Your task to perform on an android device: add a label to a message in the gmail app Image 0: 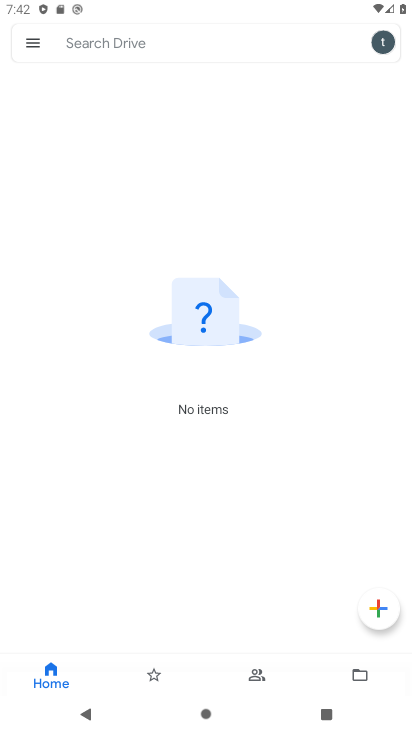
Step 0: press home button
Your task to perform on an android device: add a label to a message in the gmail app Image 1: 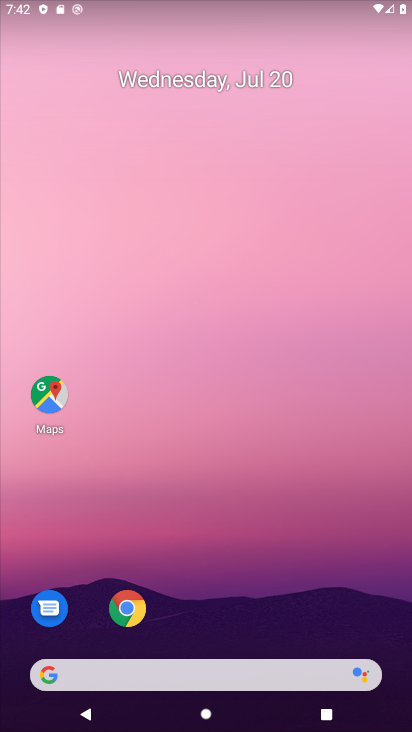
Step 1: drag from (199, 505) to (225, 16)
Your task to perform on an android device: add a label to a message in the gmail app Image 2: 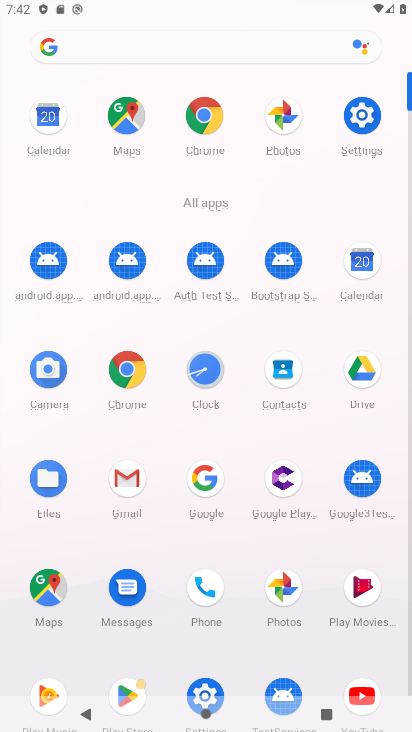
Step 2: click (126, 487)
Your task to perform on an android device: add a label to a message in the gmail app Image 3: 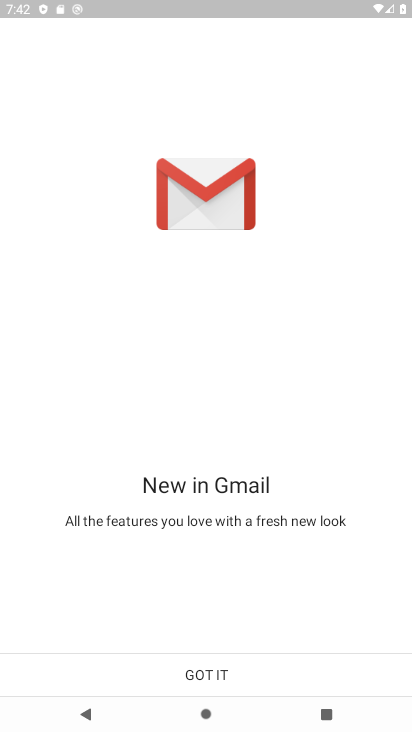
Step 3: click (197, 677)
Your task to perform on an android device: add a label to a message in the gmail app Image 4: 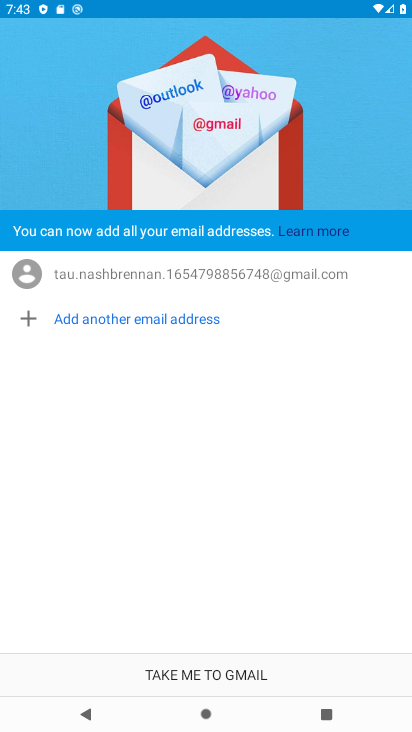
Step 4: click (197, 677)
Your task to perform on an android device: add a label to a message in the gmail app Image 5: 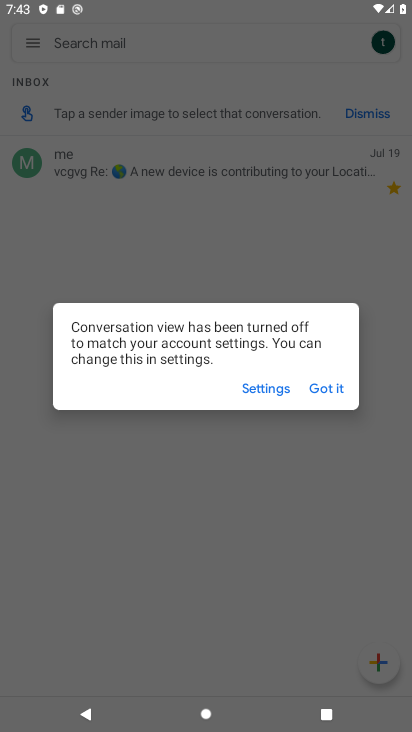
Step 5: click (333, 390)
Your task to perform on an android device: add a label to a message in the gmail app Image 6: 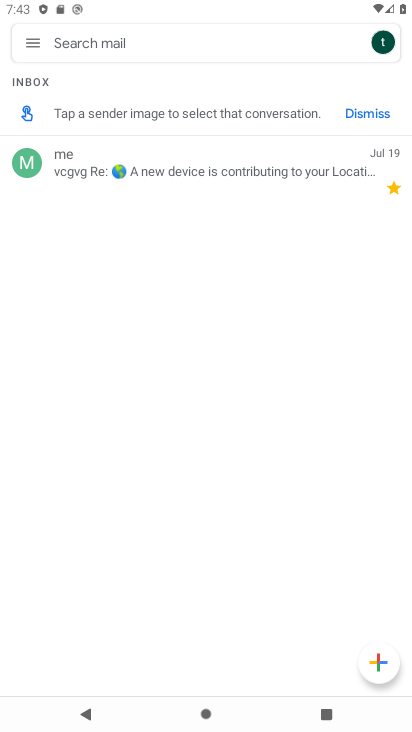
Step 6: click (23, 166)
Your task to perform on an android device: add a label to a message in the gmail app Image 7: 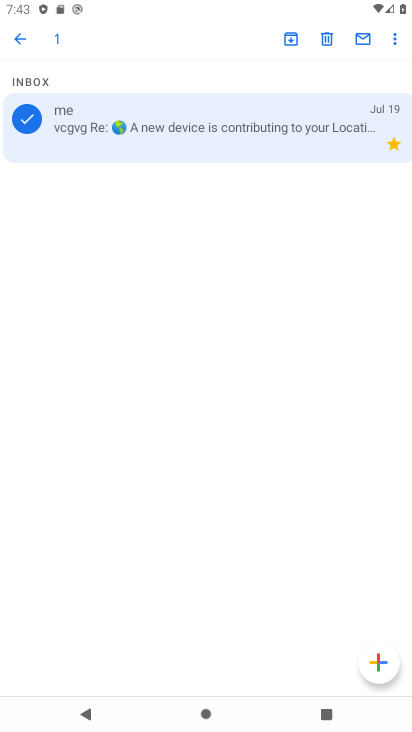
Step 7: click (391, 41)
Your task to perform on an android device: add a label to a message in the gmail app Image 8: 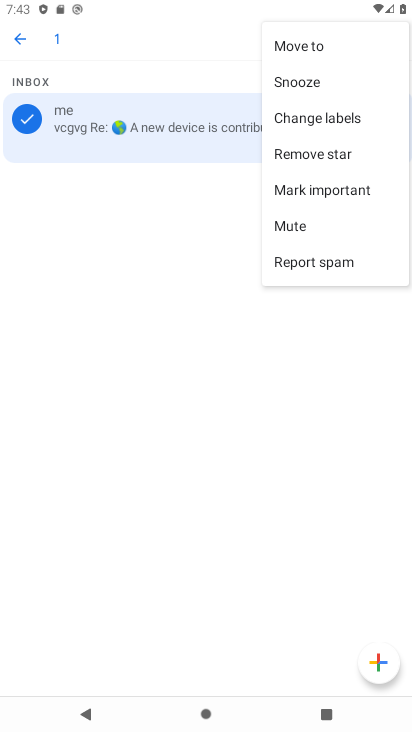
Step 8: click (311, 117)
Your task to perform on an android device: add a label to a message in the gmail app Image 9: 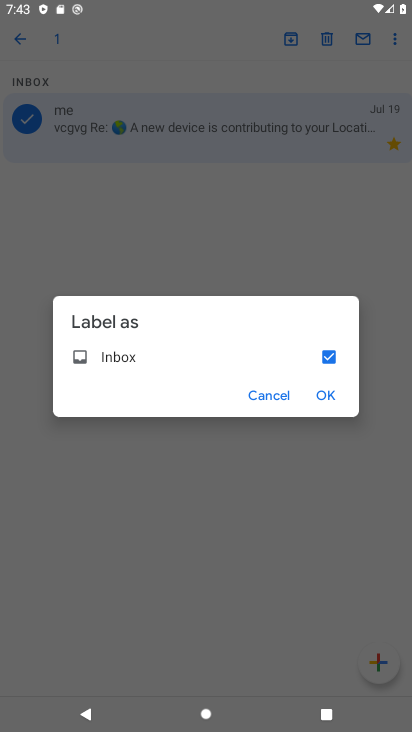
Step 9: click (326, 366)
Your task to perform on an android device: add a label to a message in the gmail app Image 10: 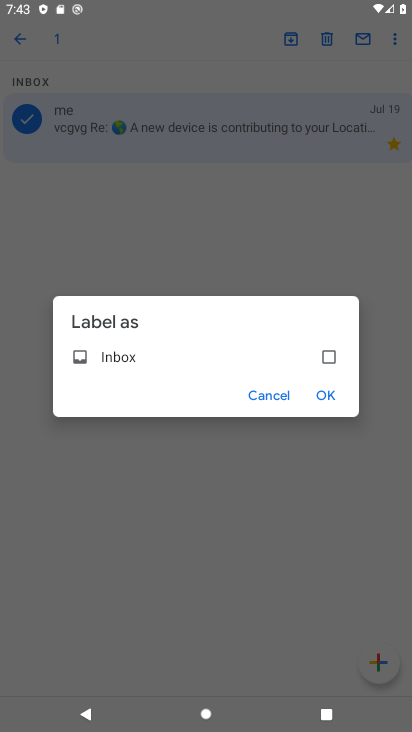
Step 10: click (332, 395)
Your task to perform on an android device: add a label to a message in the gmail app Image 11: 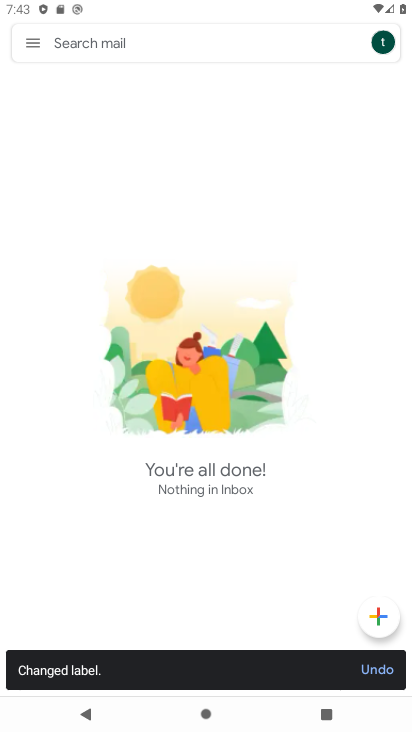
Step 11: task complete